Your task to perform on an android device: Open privacy settings Image 0: 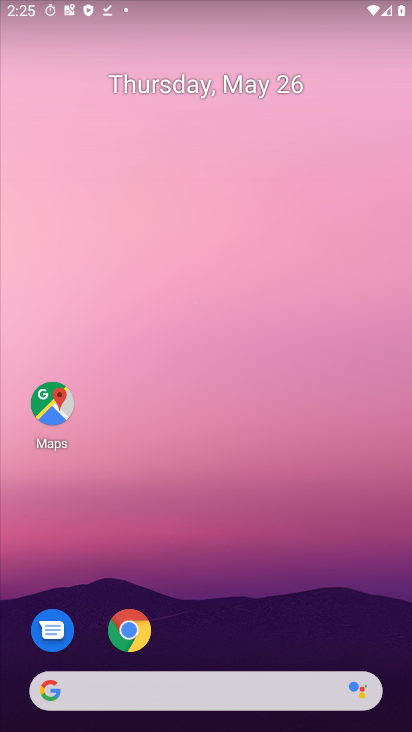
Step 0: drag from (259, 560) to (187, 131)
Your task to perform on an android device: Open privacy settings Image 1: 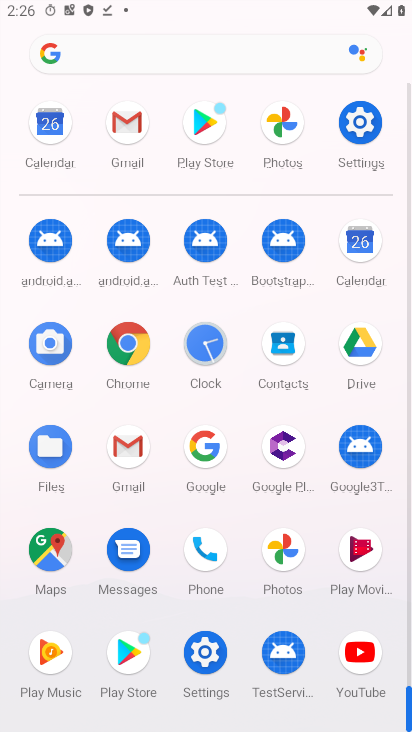
Step 1: click (338, 117)
Your task to perform on an android device: Open privacy settings Image 2: 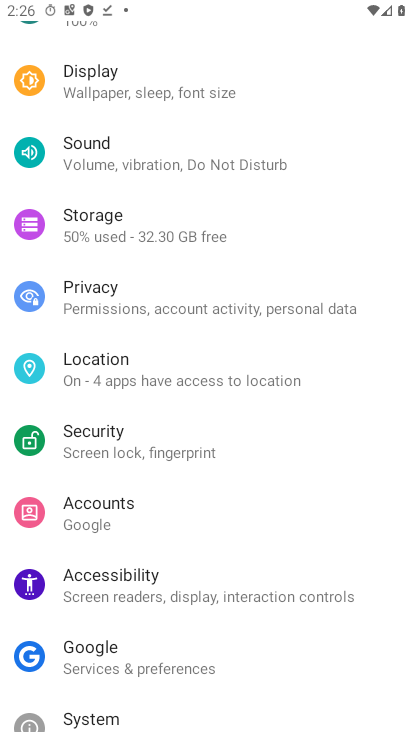
Step 2: click (55, 284)
Your task to perform on an android device: Open privacy settings Image 3: 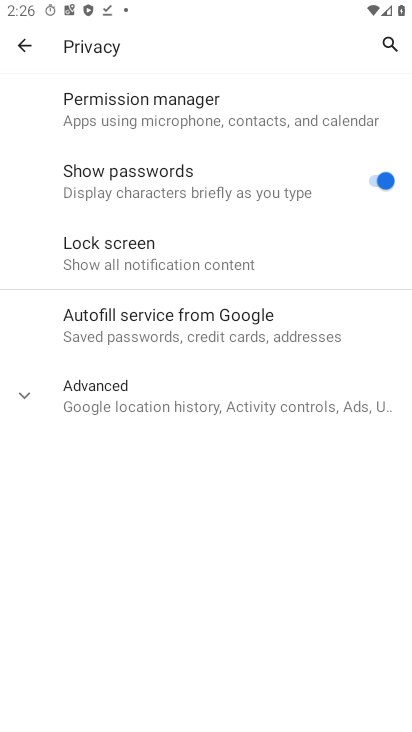
Step 3: task complete